Your task to perform on an android device: move a message to another label in the gmail app Image 0: 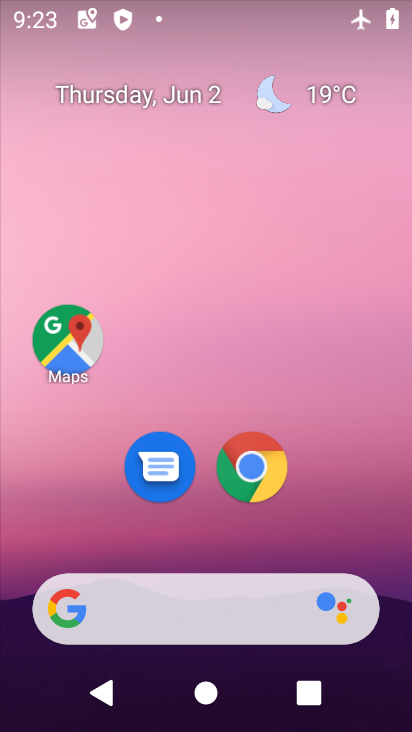
Step 0: drag from (206, 454) to (217, 51)
Your task to perform on an android device: move a message to another label in the gmail app Image 1: 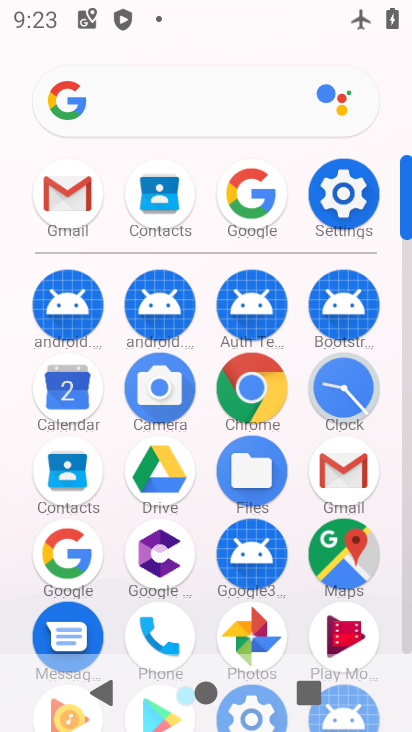
Step 1: click (357, 475)
Your task to perform on an android device: move a message to another label in the gmail app Image 2: 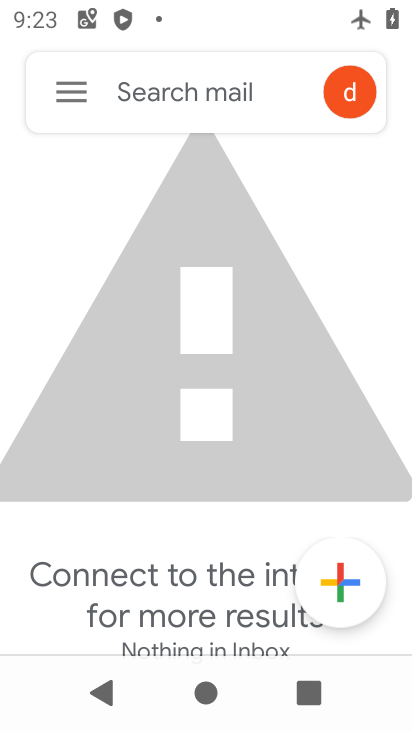
Step 2: click (66, 94)
Your task to perform on an android device: move a message to another label in the gmail app Image 3: 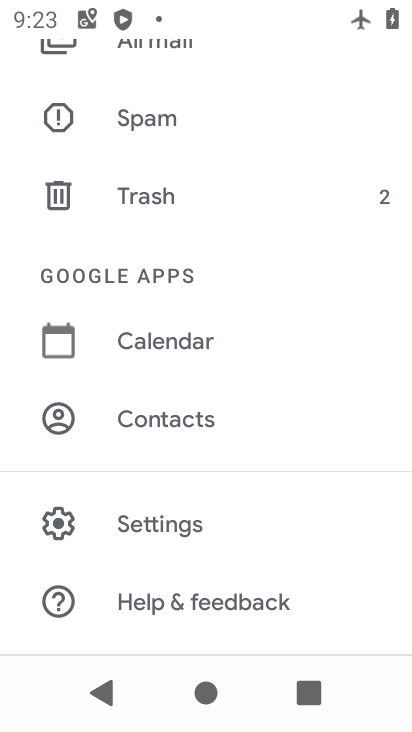
Step 3: drag from (274, 345) to (269, 580)
Your task to perform on an android device: move a message to another label in the gmail app Image 4: 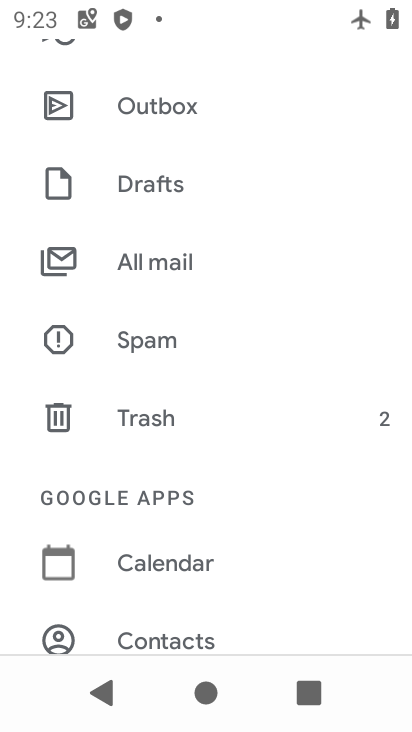
Step 4: click (271, 254)
Your task to perform on an android device: move a message to another label in the gmail app Image 5: 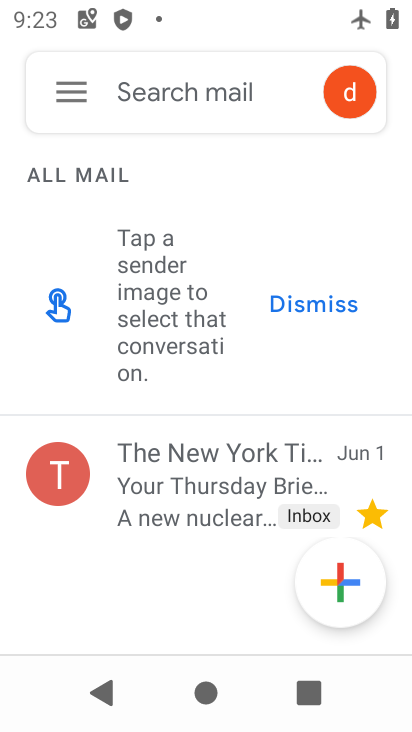
Step 5: click (302, 515)
Your task to perform on an android device: move a message to another label in the gmail app Image 6: 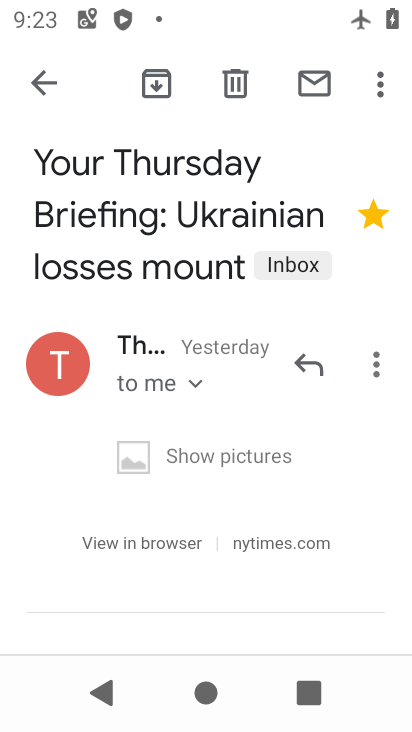
Step 6: click (290, 268)
Your task to perform on an android device: move a message to another label in the gmail app Image 7: 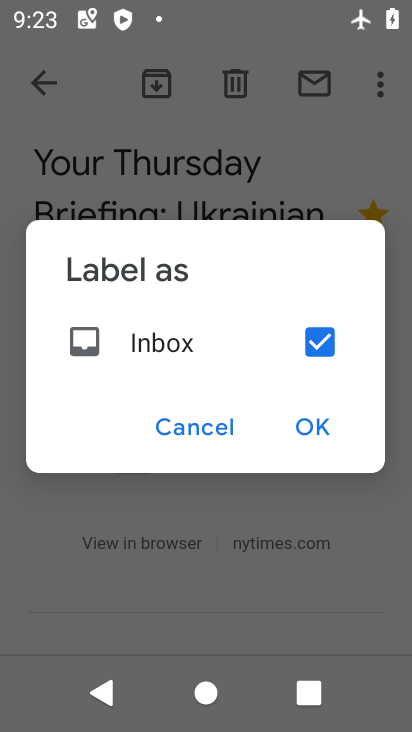
Step 7: click (328, 339)
Your task to perform on an android device: move a message to another label in the gmail app Image 8: 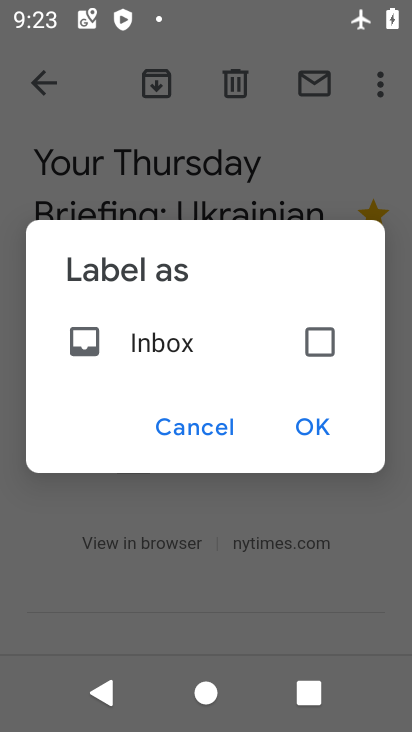
Step 8: click (313, 435)
Your task to perform on an android device: move a message to another label in the gmail app Image 9: 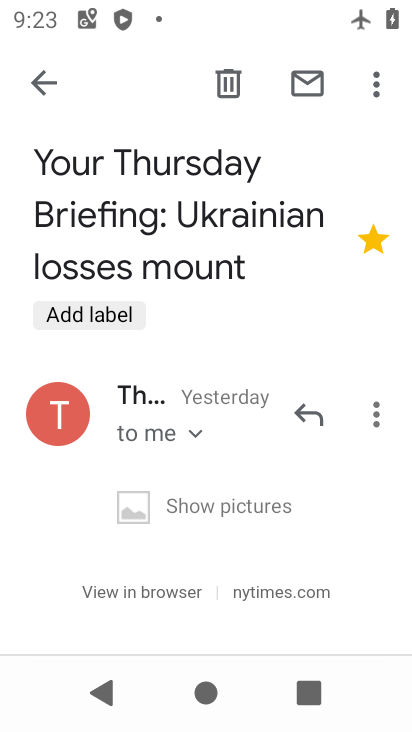
Step 9: task complete